Your task to perform on an android device: see sites visited before in the chrome app Image 0: 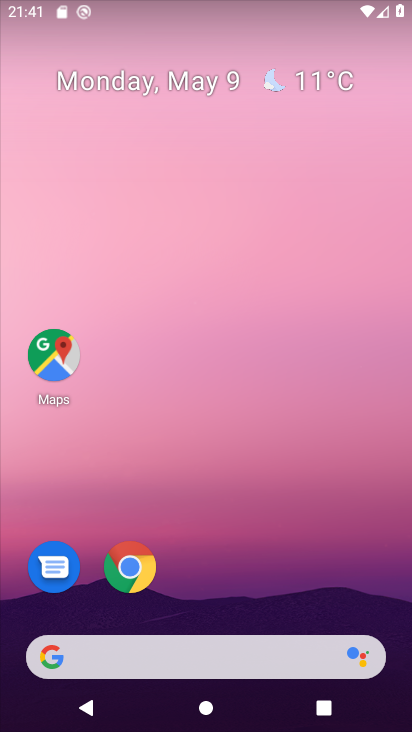
Step 0: press home button
Your task to perform on an android device: see sites visited before in the chrome app Image 1: 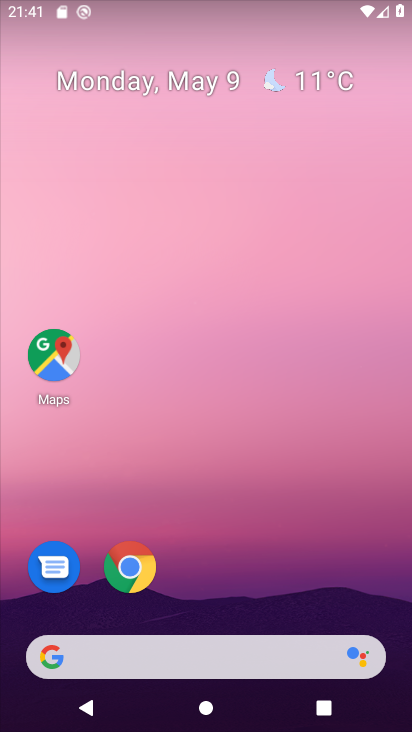
Step 1: click (138, 568)
Your task to perform on an android device: see sites visited before in the chrome app Image 2: 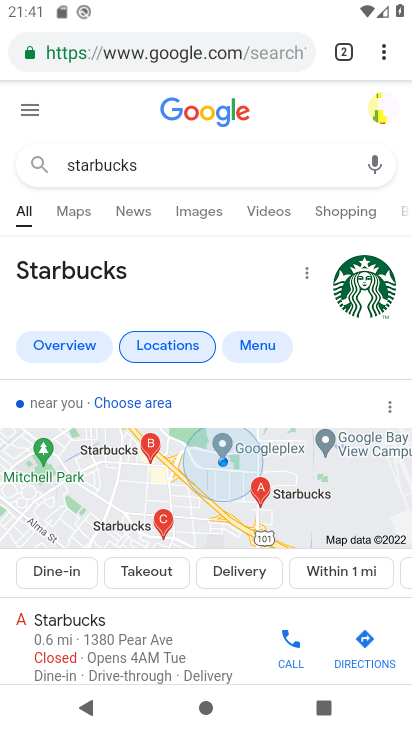
Step 2: click (381, 51)
Your task to perform on an android device: see sites visited before in the chrome app Image 3: 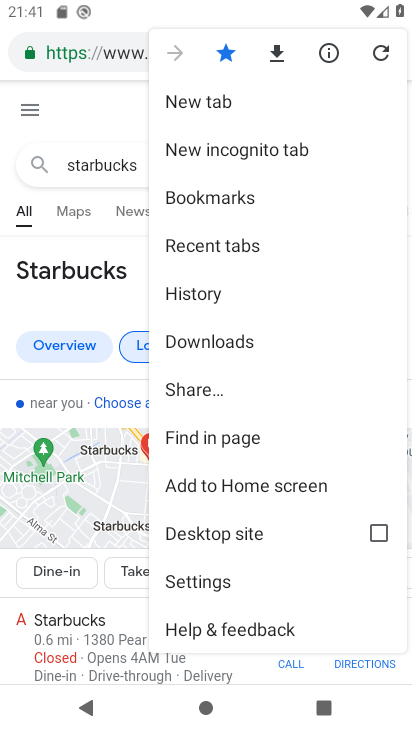
Step 3: click (222, 277)
Your task to perform on an android device: see sites visited before in the chrome app Image 4: 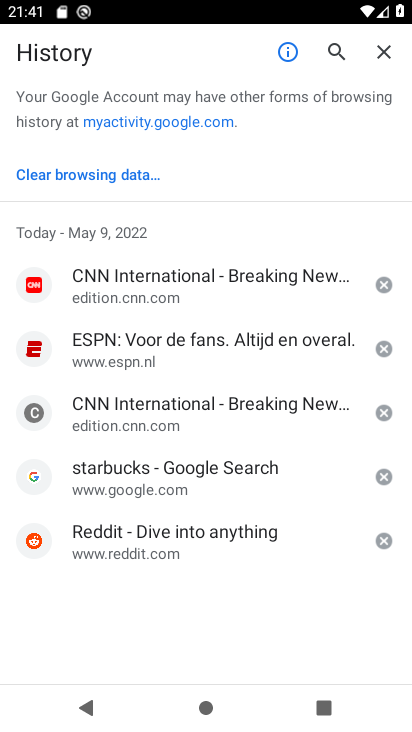
Step 4: task complete